Your task to perform on an android device: Open calendar and show me the first week of next month Image 0: 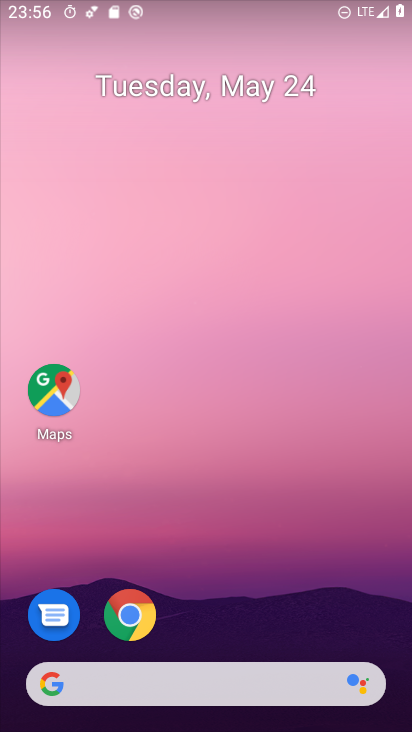
Step 0: drag from (249, 689) to (287, 126)
Your task to perform on an android device: Open calendar and show me the first week of next month Image 1: 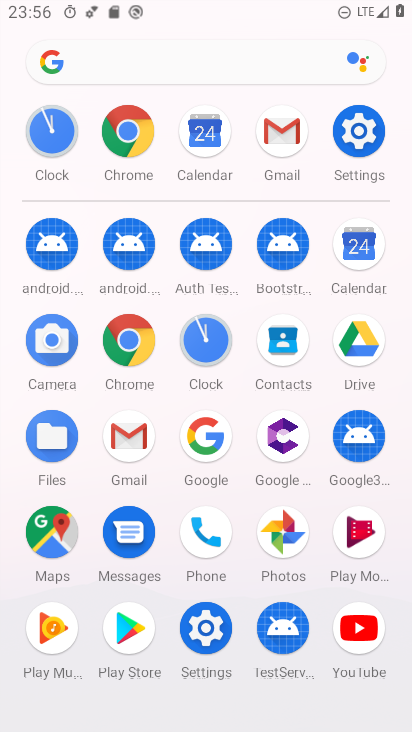
Step 1: click (352, 254)
Your task to perform on an android device: Open calendar and show me the first week of next month Image 2: 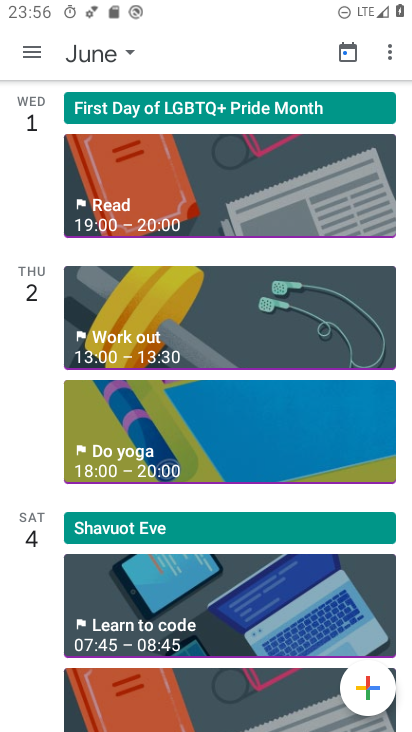
Step 2: task complete